Your task to perform on an android device: Open notification settings Image 0: 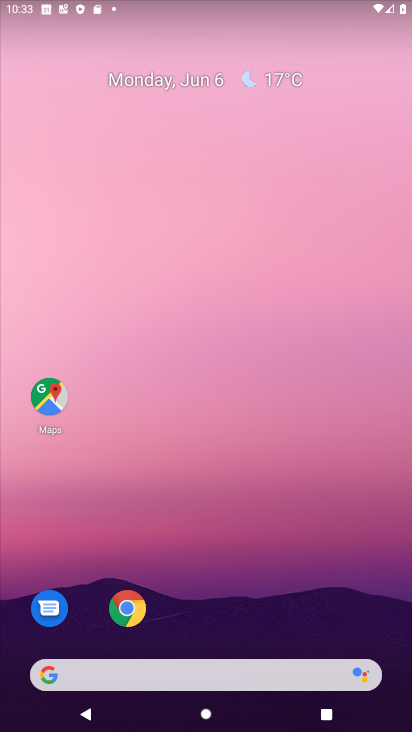
Step 0: drag from (238, 616) to (198, 46)
Your task to perform on an android device: Open notification settings Image 1: 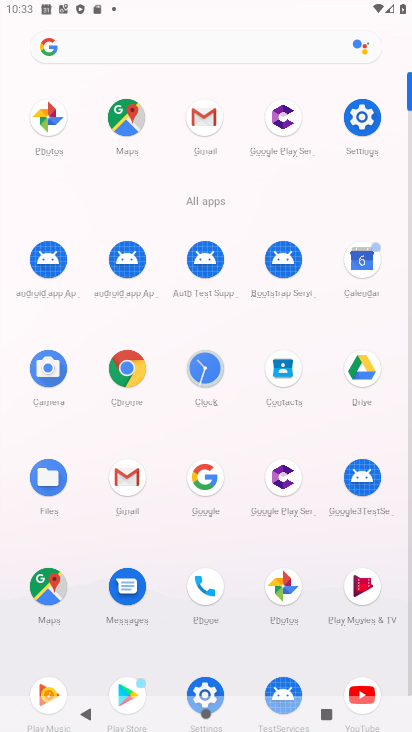
Step 1: click (367, 122)
Your task to perform on an android device: Open notification settings Image 2: 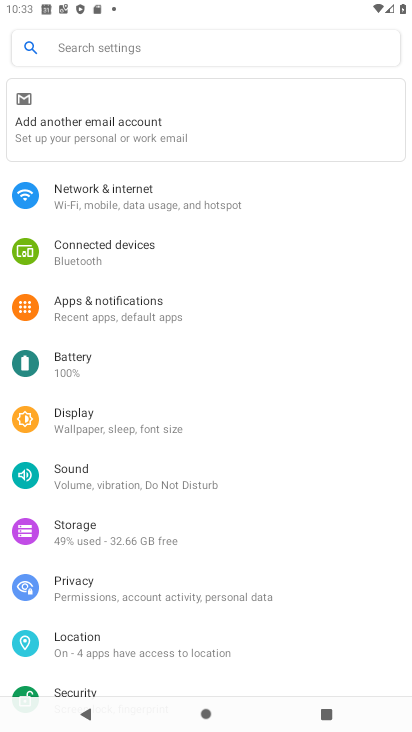
Step 2: click (185, 308)
Your task to perform on an android device: Open notification settings Image 3: 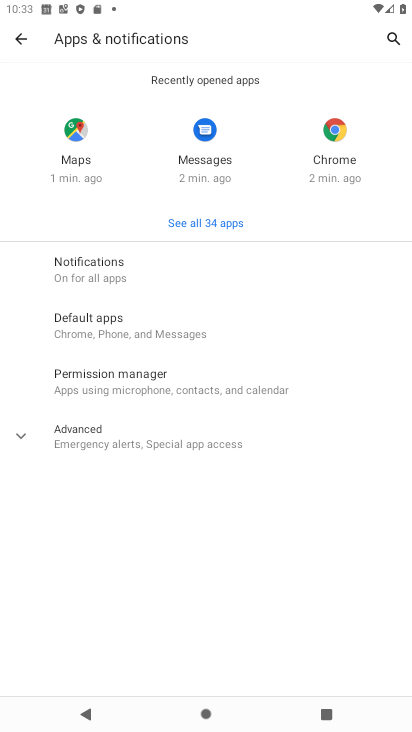
Step 3: click (156, 268)
Your task to perform on an android device: Open notification settings Image 4: 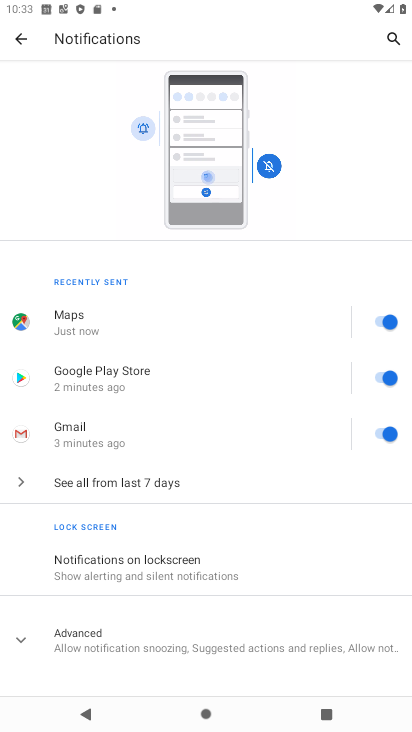
Step 4: task complete